Your task to perform on an android device: Open ESPN.com Image 0: 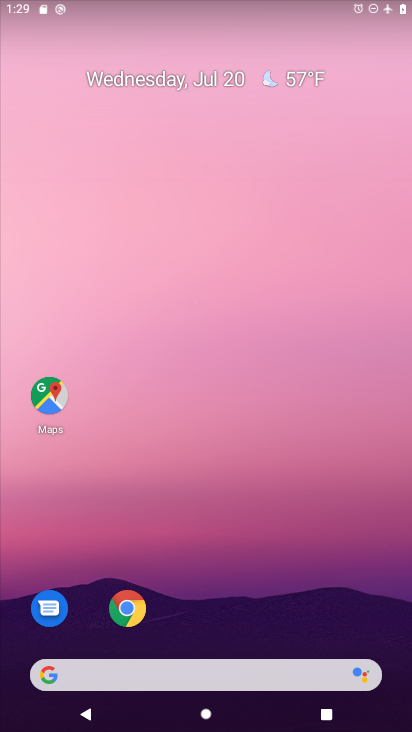
Step 0: click (192, 673)
Your task to perform on an android device: Open ESPN.com Image 1: 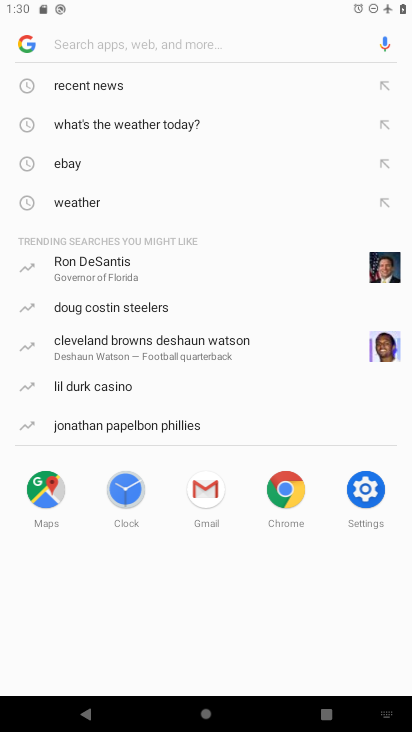
Step 1: type "espn.com"
Your task to perform on an android device: Open ESPN.com Image 2: 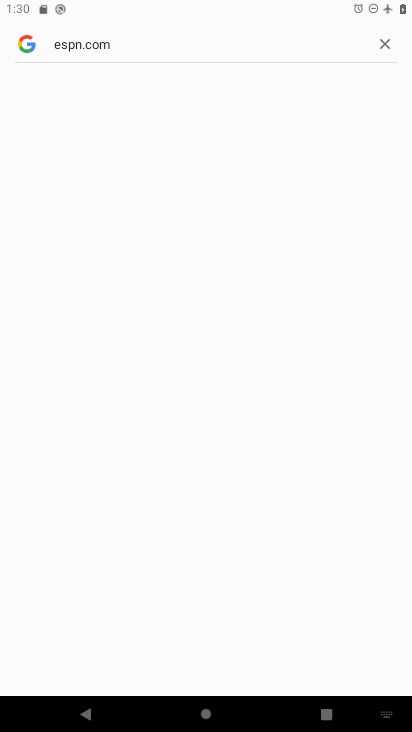
Step 2: press enter
Your task to perform on an android device: Open ESPN.com Image 3: 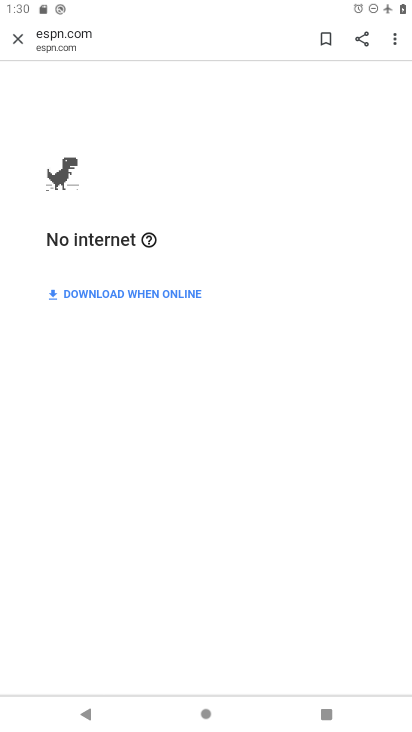
Step 3: task complete